Your task to perform on an android device: Check out the best rated 4k TV on Best Buy. Image 0: 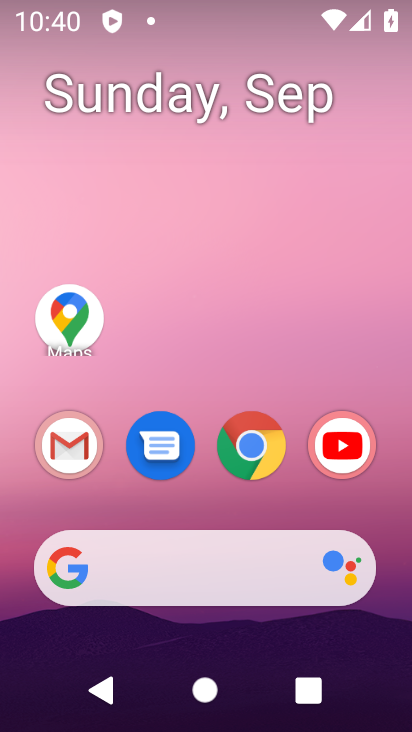
Step 0: drag from (151, 575) to (181, 26)
Your task to perform on an android device: Check out the best rated 4k TV on Best Buy. Image 1: 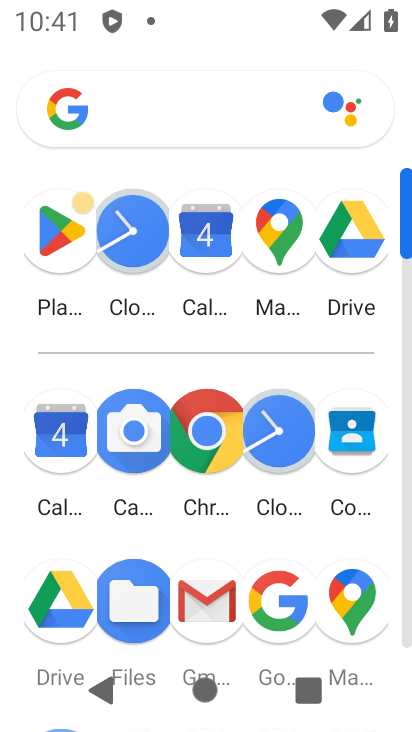
Step 1: click (198, 443)
Your task to perform on an android device: Check out the best rated 4k TV on Best Buy. Image 2: 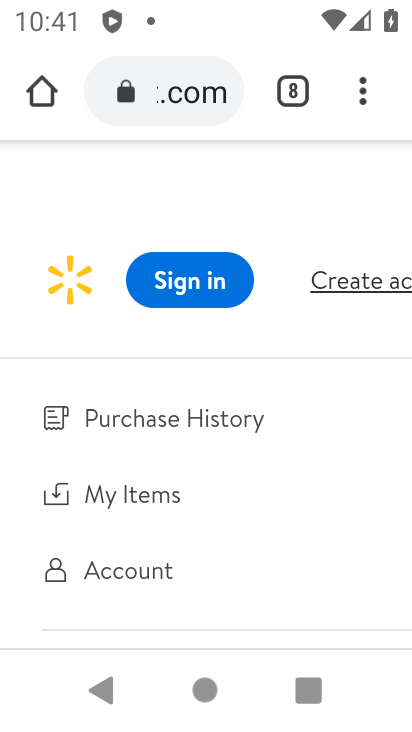
Step 2: click (186, 87)
Your task to perform on an android device: Check out the best rated 4k TV on Best Buy. Image 3: 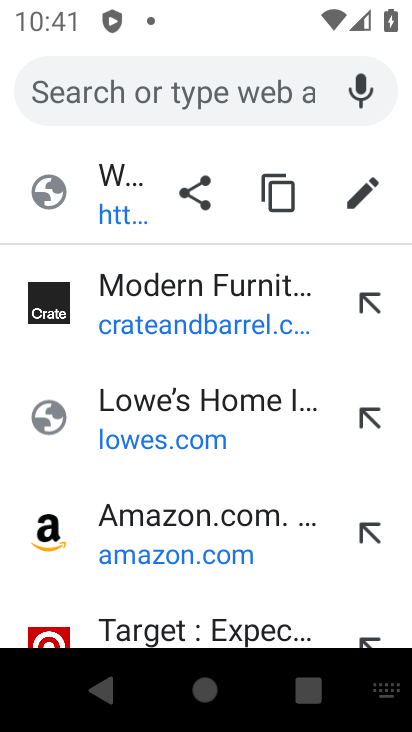
Step 3: type "Best Buy"
Your task to perform on an android device: Check out the best rated 4k TV on Best Buy. Image 4: 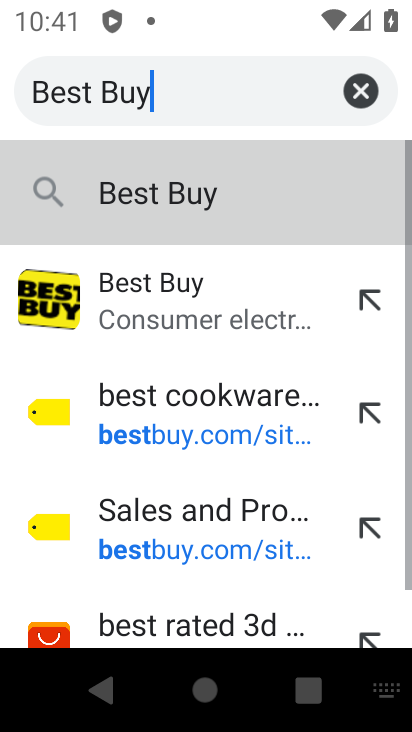
Step 4: press enter
Your task to perform on an android device: Check out the best rated 4k TV on Best Buy. Image 5: 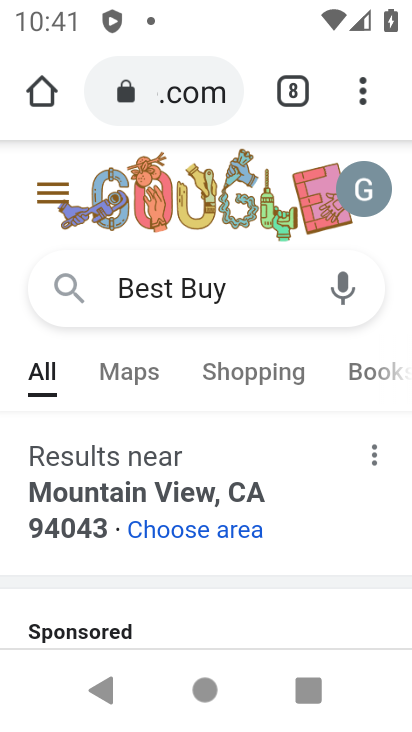
Step 5: drag from (163, 260) to (174, 216)
Your task to perform on an android device: Check out the best rated 4k TV on Best Buy. Image 6: 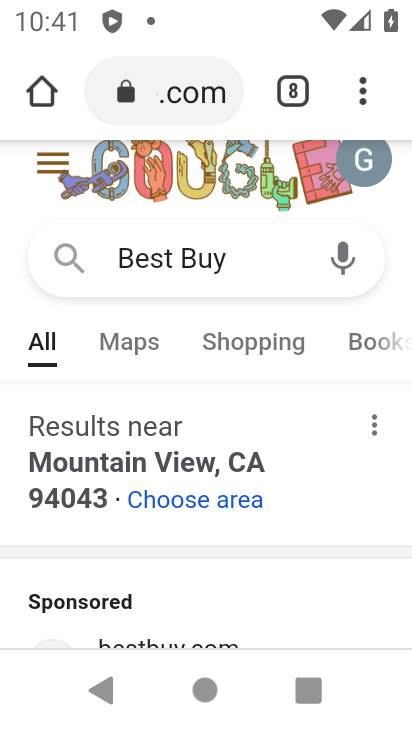
Step 6: drag from (221, 292) to (280, 167)
Your task to perform on an android device: Check out the best rated 4k TV on Best Buy. Image 7: 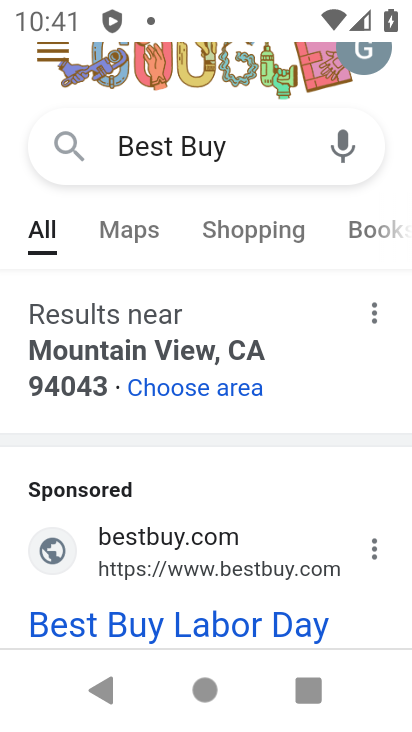
Step 7: drag from (122, 519) to (224, 207)
Your task to perform on an android device: Check out the best rated 4k TV on Best Buy. Image 8: 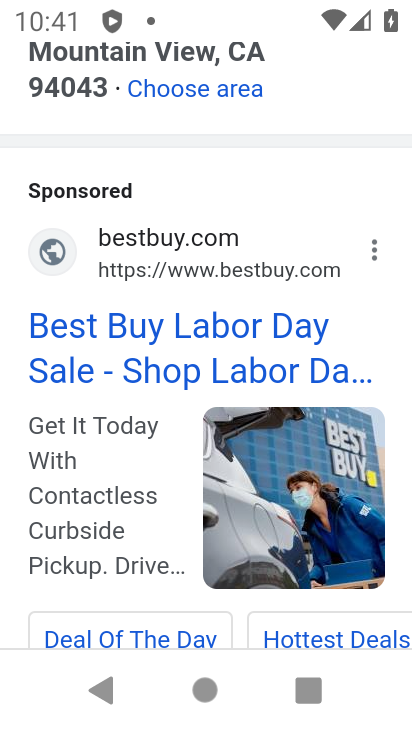
Step 8: click (169, 242)
Your task to perform on an android device: Check out the best rated 4k TV on Best Buy. Image 9: 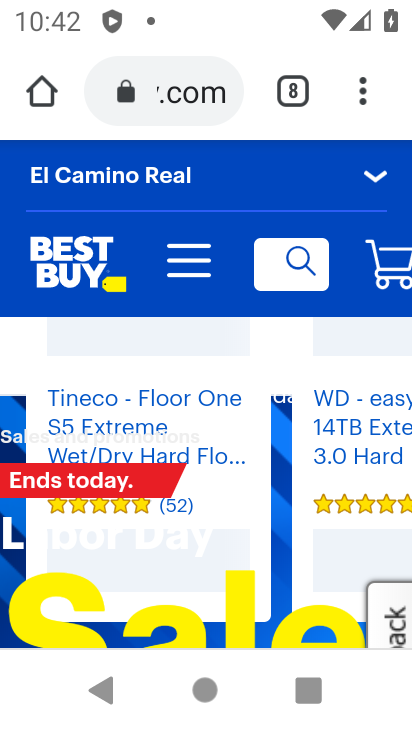
Step 9: click (244, 276)
Your task to perform on an android device: Check out the best rated 4k TV on Best Buy. Image 10: 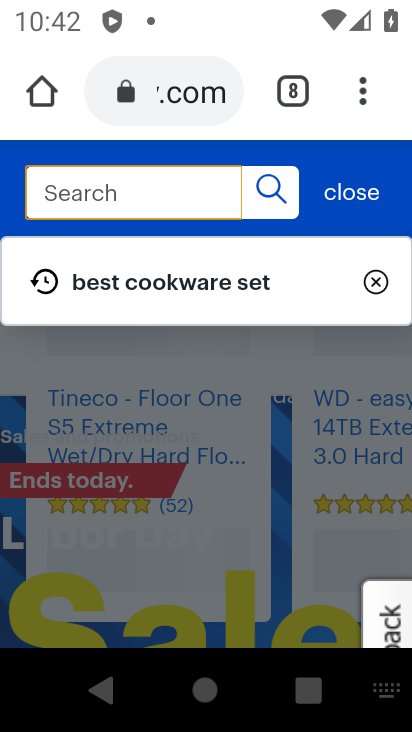
Step 10: press enter
Your task to perform on an android device: Check out the best rated 4k TV on Best Buy. Image 11: 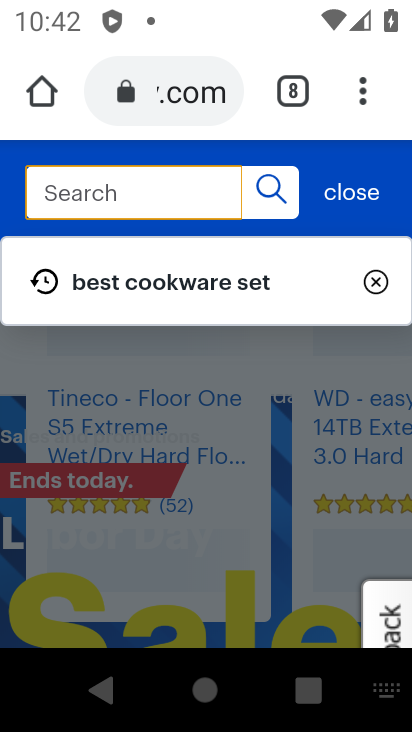
Step 11: type "best rated 4k TV"
Your task to perform on an android device: Check out the best rated 4k TV on Best Buy. Image 12: 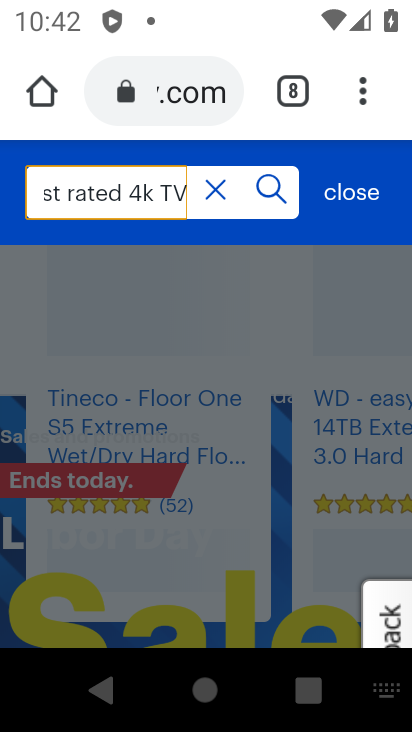
Step 12: press enter
Your task to perform on an android device: Check out the best rated 4k TV on Best Buy. Image 13: 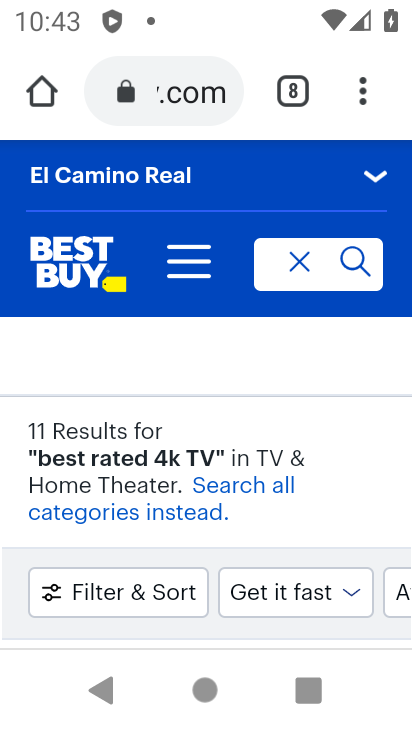
Step 13: drag from (197, 407) to (246, 163)
Your task to perform on an android device: Check out the best rated 4k TV on Best Buy. Image 14: 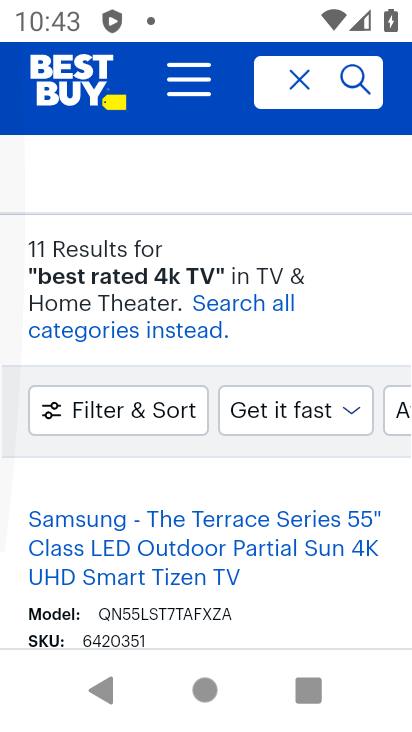
Step 14: drag from (223, 303) to (229, 175)
Your task to perform on an android device: Check out the best rated 4k TV on Best Buy. Image 15: 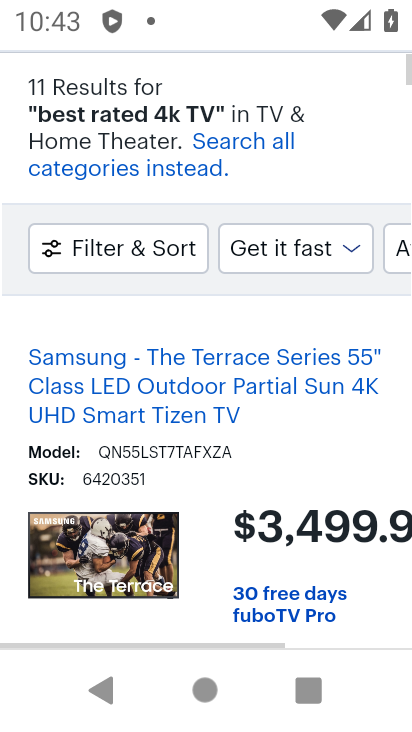
Step 15: click (256, 175)
Your task to perform on an android device: Check out the best rated 4k TV on Best Buy. Image 16: 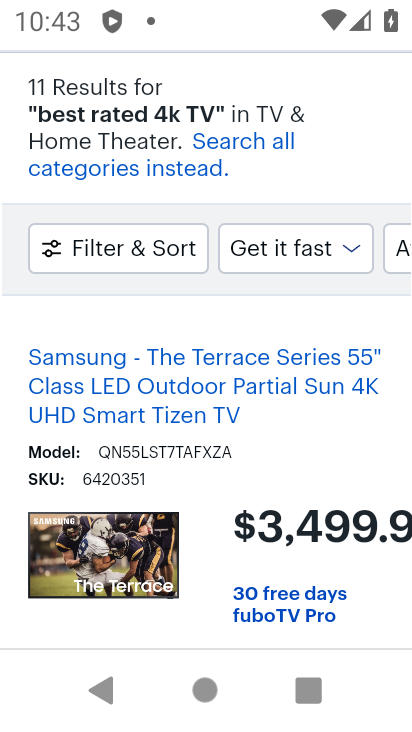
Step 16: drag from (320, 614) to (288, 310)
Your task to perform on an android device: Check out the best rated 4k TV on Best Buy. Image 17: 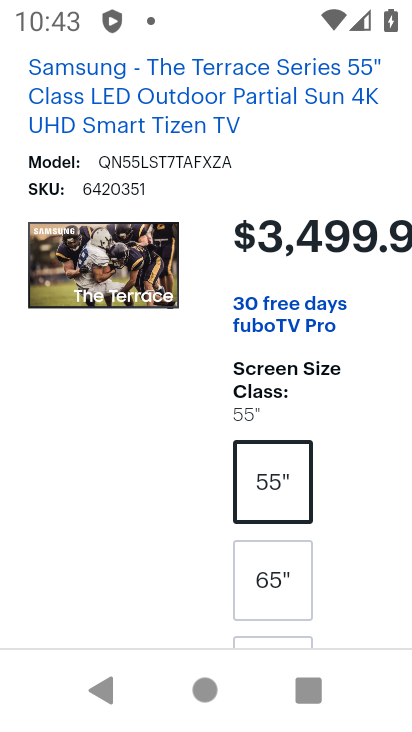
Step 17: drag from (243, 263) to (270, 171)
Your task to perform on an android device: Check out the best rated 4k TV on Best Buy. Image 18: 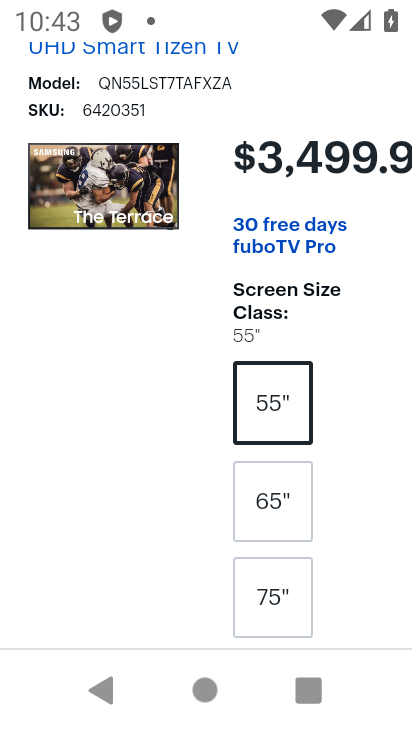
Step 18: drag from (230, 511) to (353, 97)
Your task to perform on an android device: Check out the best rated 4k TV on Best Buy. Image 19: 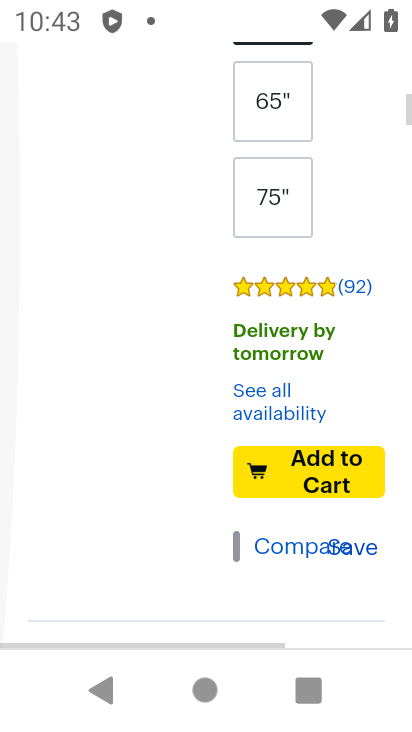
Step 19: drag from (238, 541) to (313, 133)
Your task to perform on an android device: Check out the best rated 4k TV on Best Buy. Image 20: 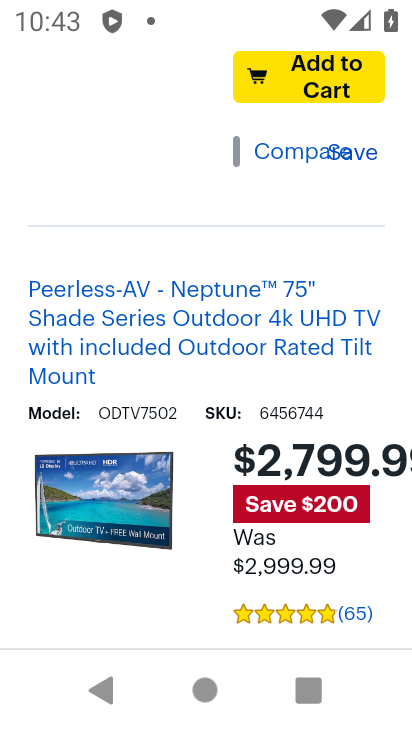
Step 20: click (288, 171)
Your task to perform on an android device: Check out the best rated 4k TV on Best Buy. Image 21: 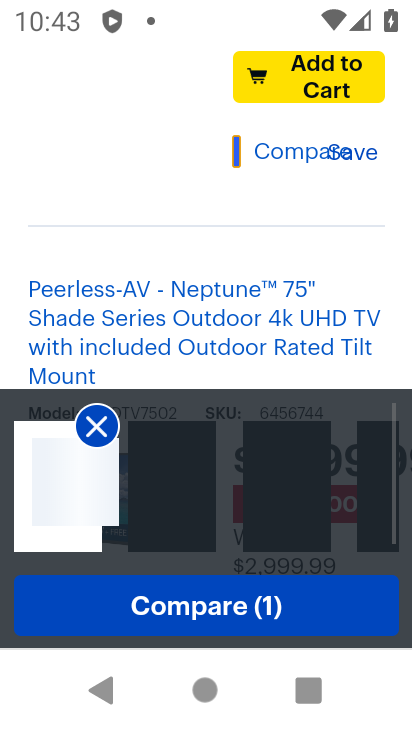
Step 21: click (98, 437)
Your task to perform on an android device: Check out the best rated 4k TV on Best Buy. Image 22: 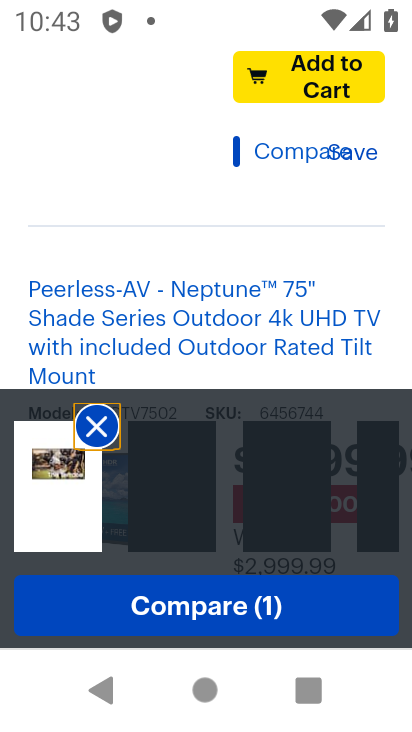
Step 22: drag from (364, 178) to (364, 122)
Your task to perform on an android device: Check out the best rated 4k TV on Best Buy. Image 23: 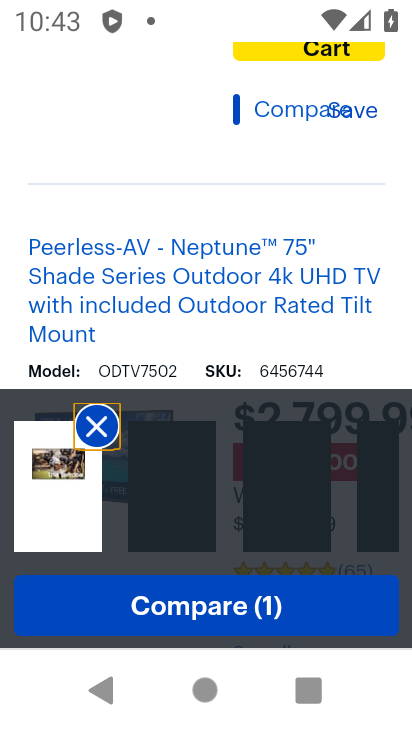
Step 23: drag from (341, 356) to (341, 161)
Your task to perform on an android device: Check out the best rated 4k TV on Best Buy. Image 24: 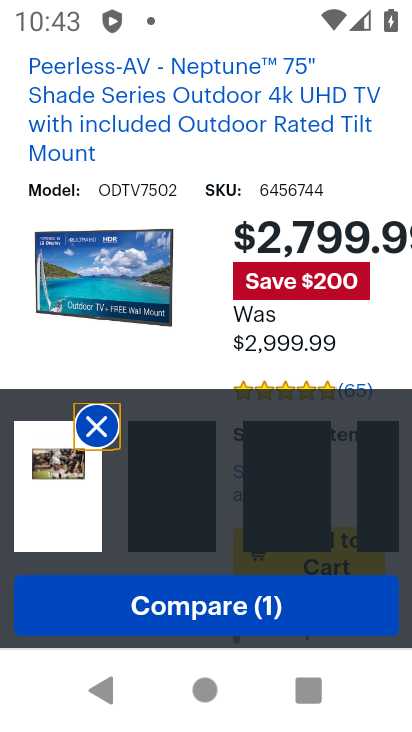
Step 24: click (98, 423)
Your task to perform on an android device: Check out the best rated 4k TV on Best Buy. Image 25: 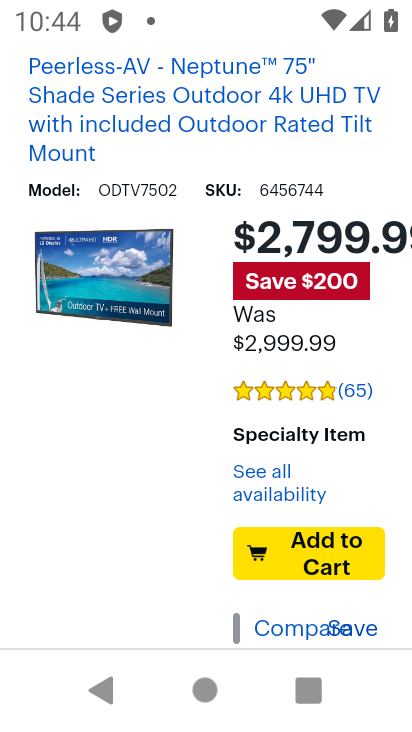
Step 25: click (123, 452)
Your task to perform on an android device: Check out the best rated 4k TV on Best Buy. Image 26: 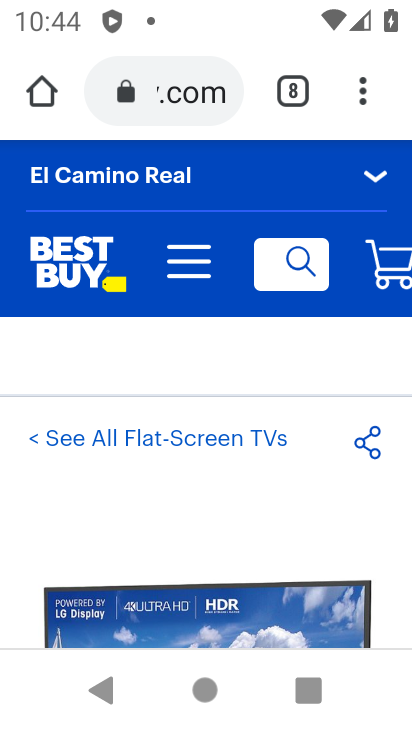
Step 26: task complete